Your task to perform on an android device: Open a new Chrome tab Image 0: 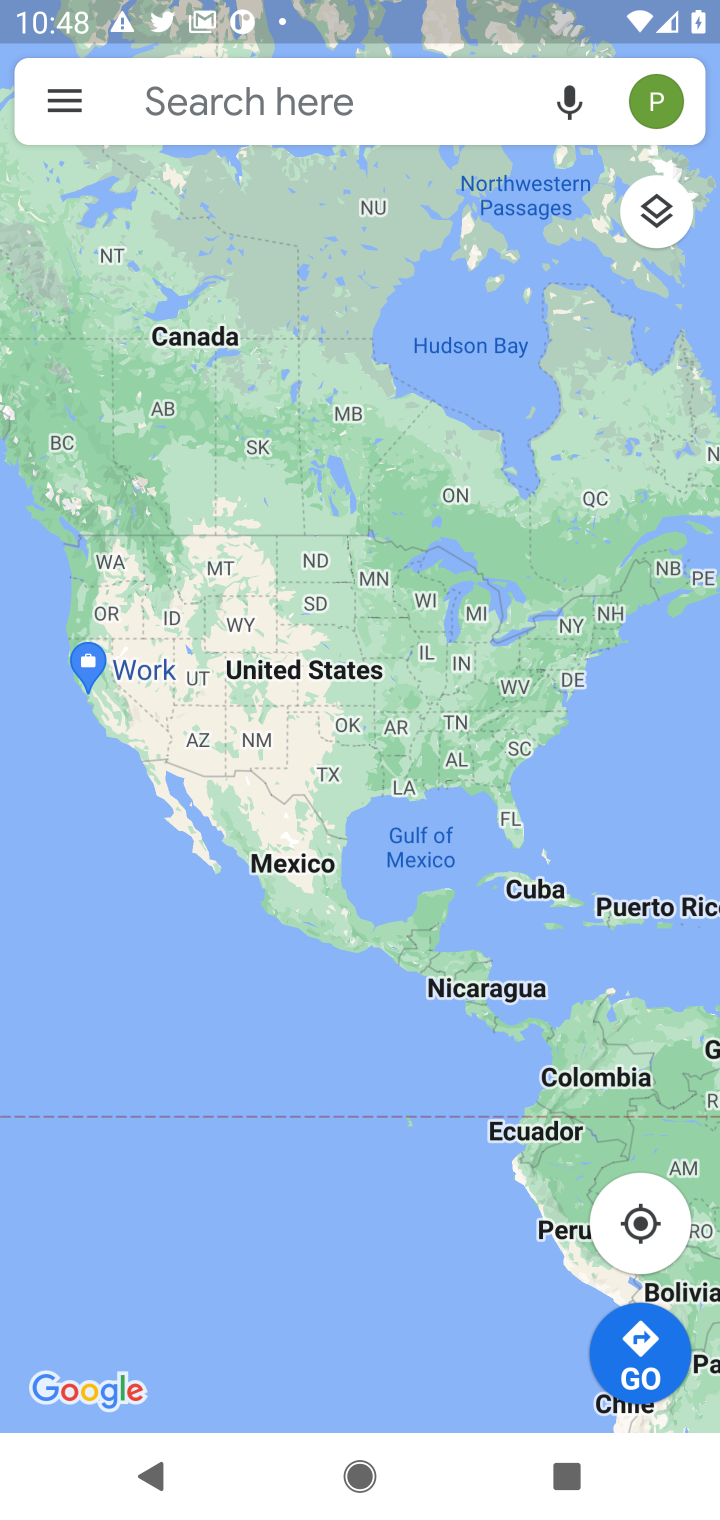
Step 0: press home button
Your task to perform on an android device: Open a new Chrome tab Image 1: 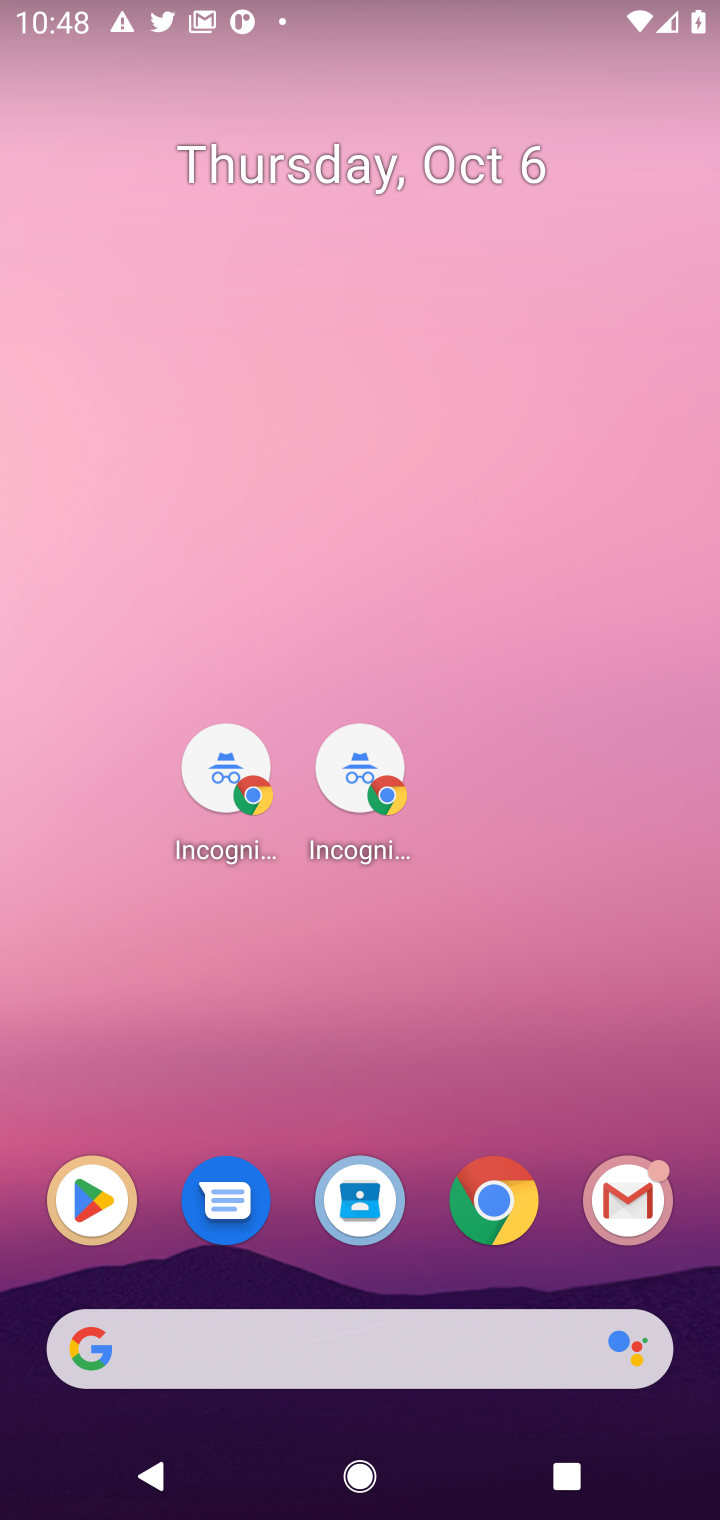
Step 1: press home button
Your task to perform on an android device: Open a new Chrome tab Image 2: 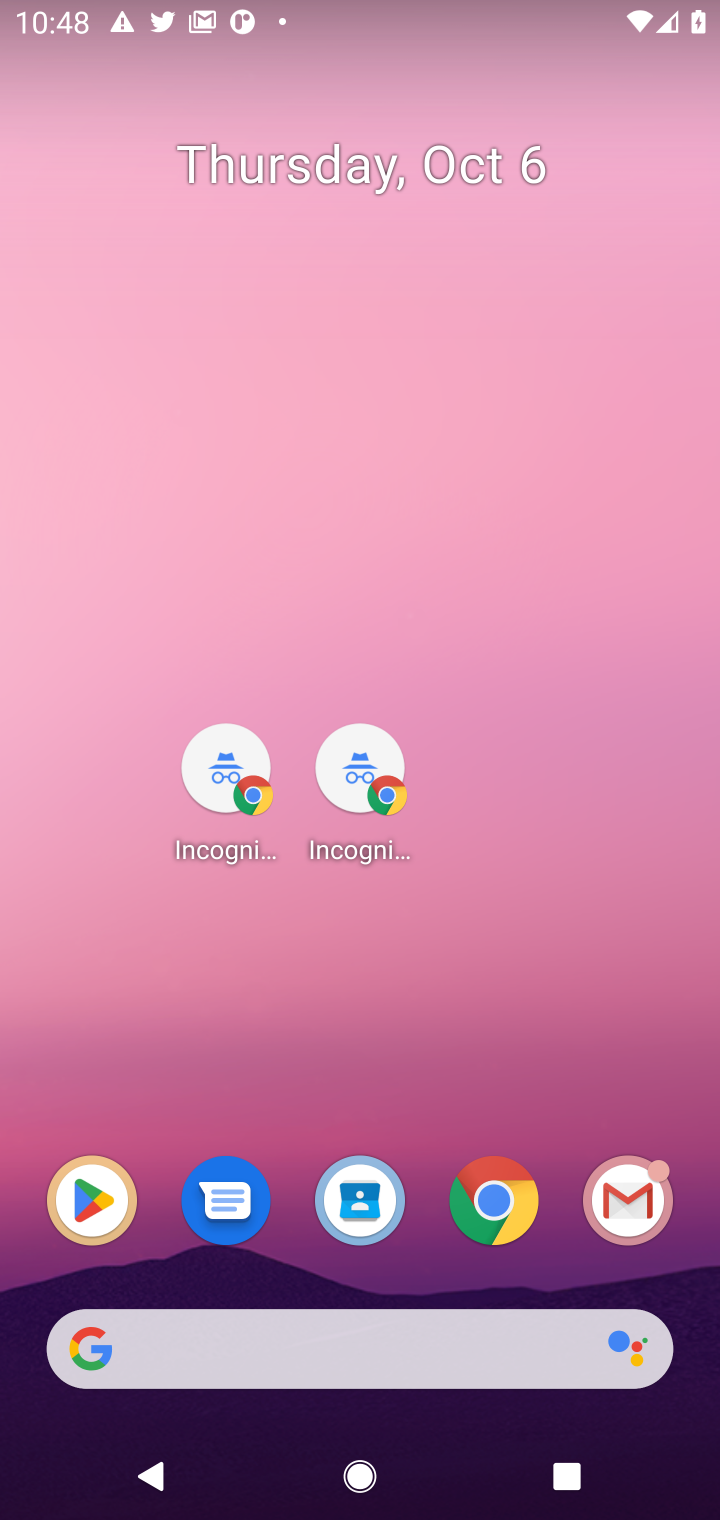
Step 2: press back button
Your task to perform on an android device: Open a new Chrome tab Image 3: 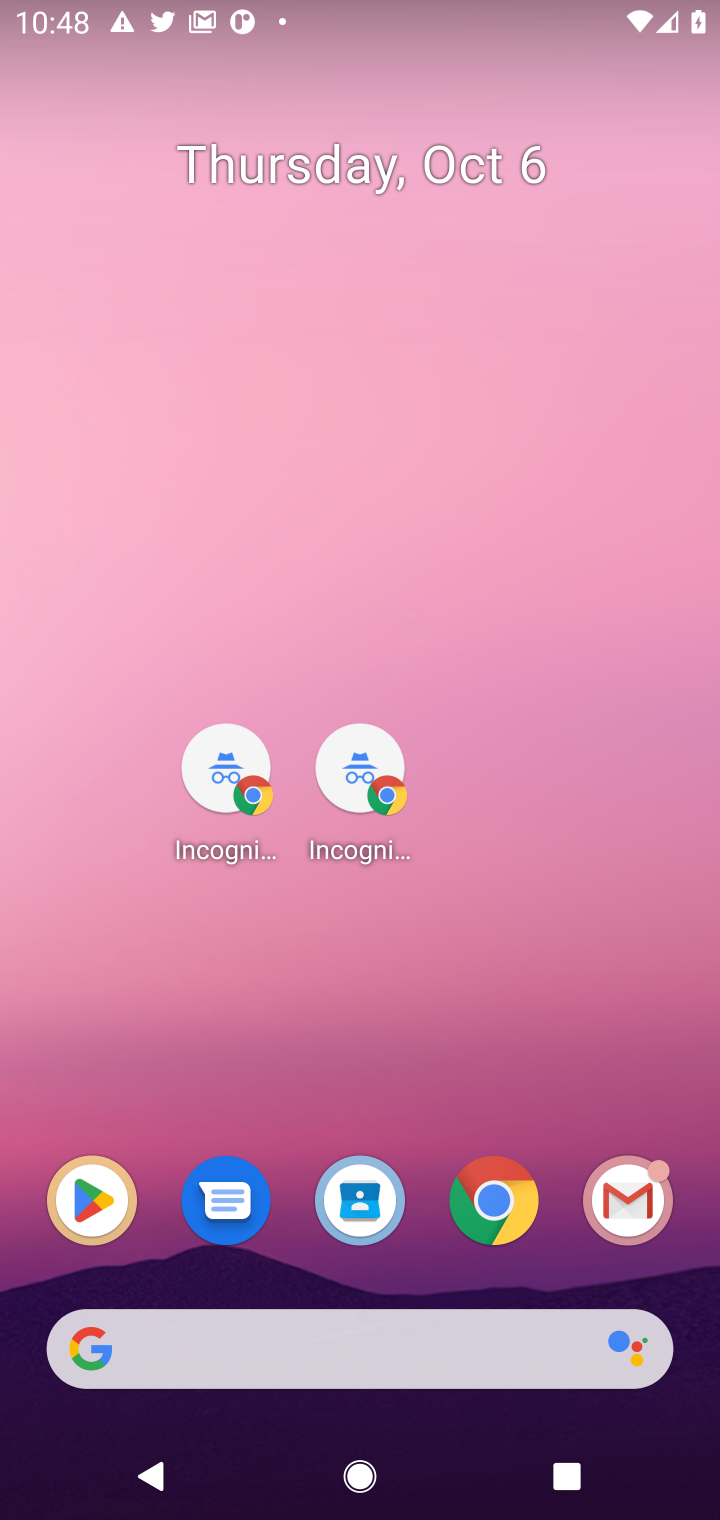
Step 3: press back button
Your task to perform on an android device: Open a new Chrome tab Image 4: 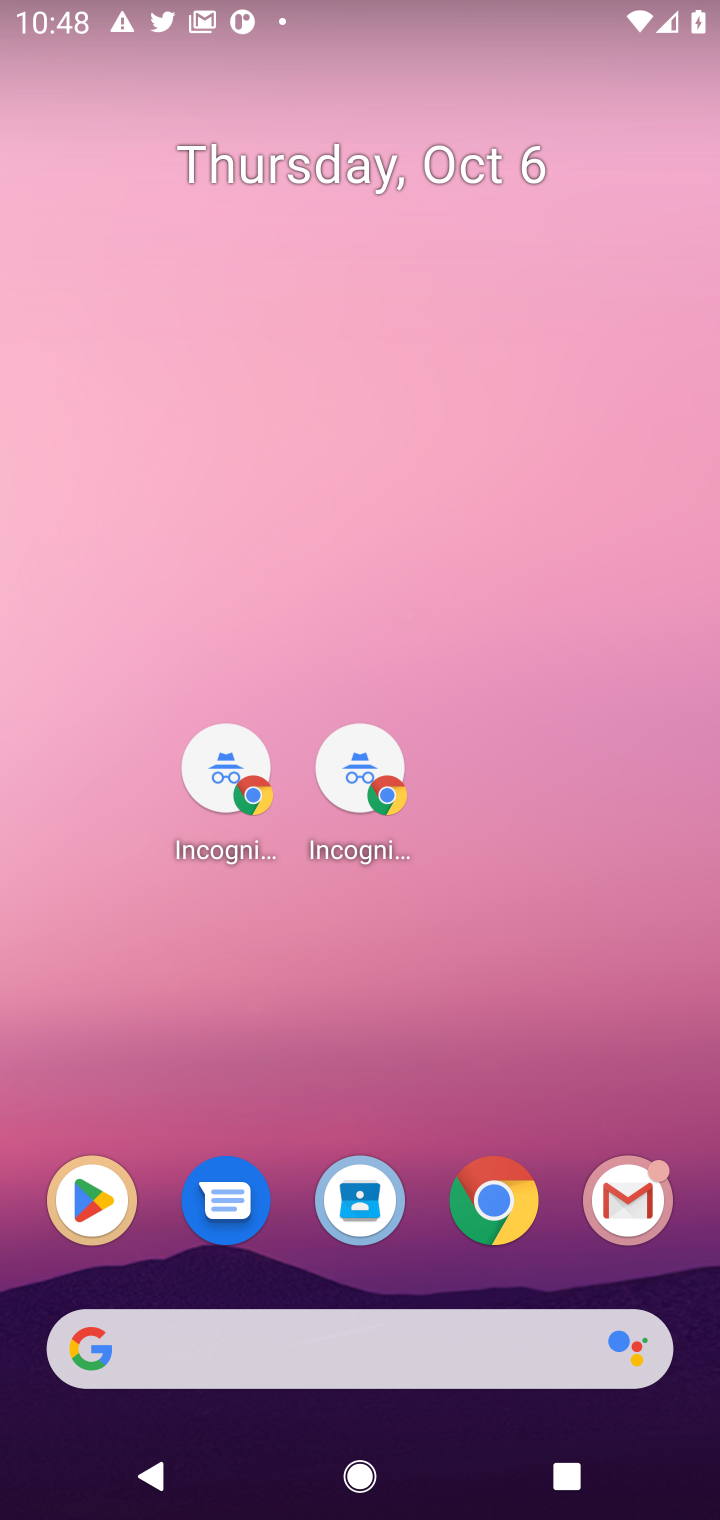
Step 4: click (526, 1189)
Your task to perform on an android device: Open a new Chrome tab Image 5: 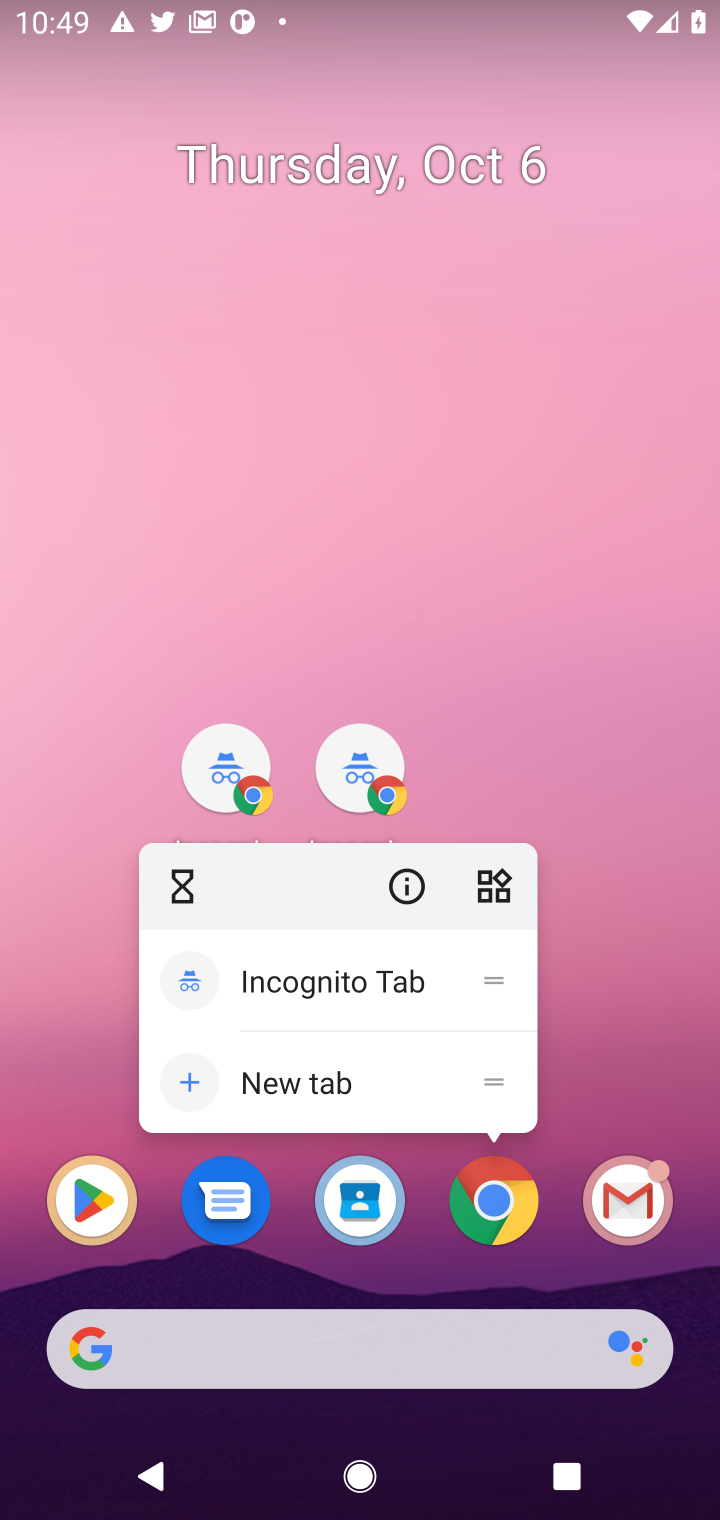
Step 5: click (530, 1171)
Your task to perform on an android device: Open a new Chrome tab Image 6: 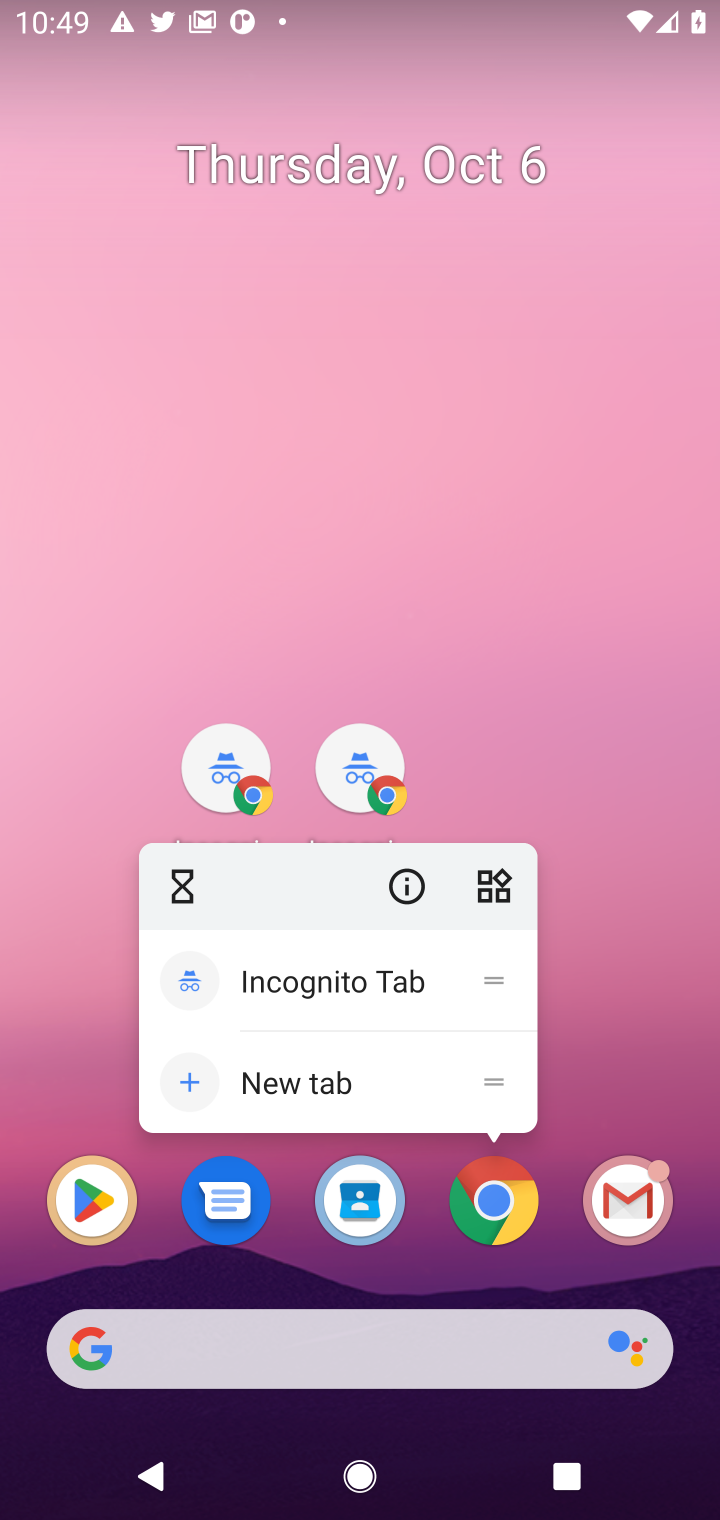
Step 6: click (271, 1079)
Your task to perform on an android device: Open a new Chrome tab Image 7: 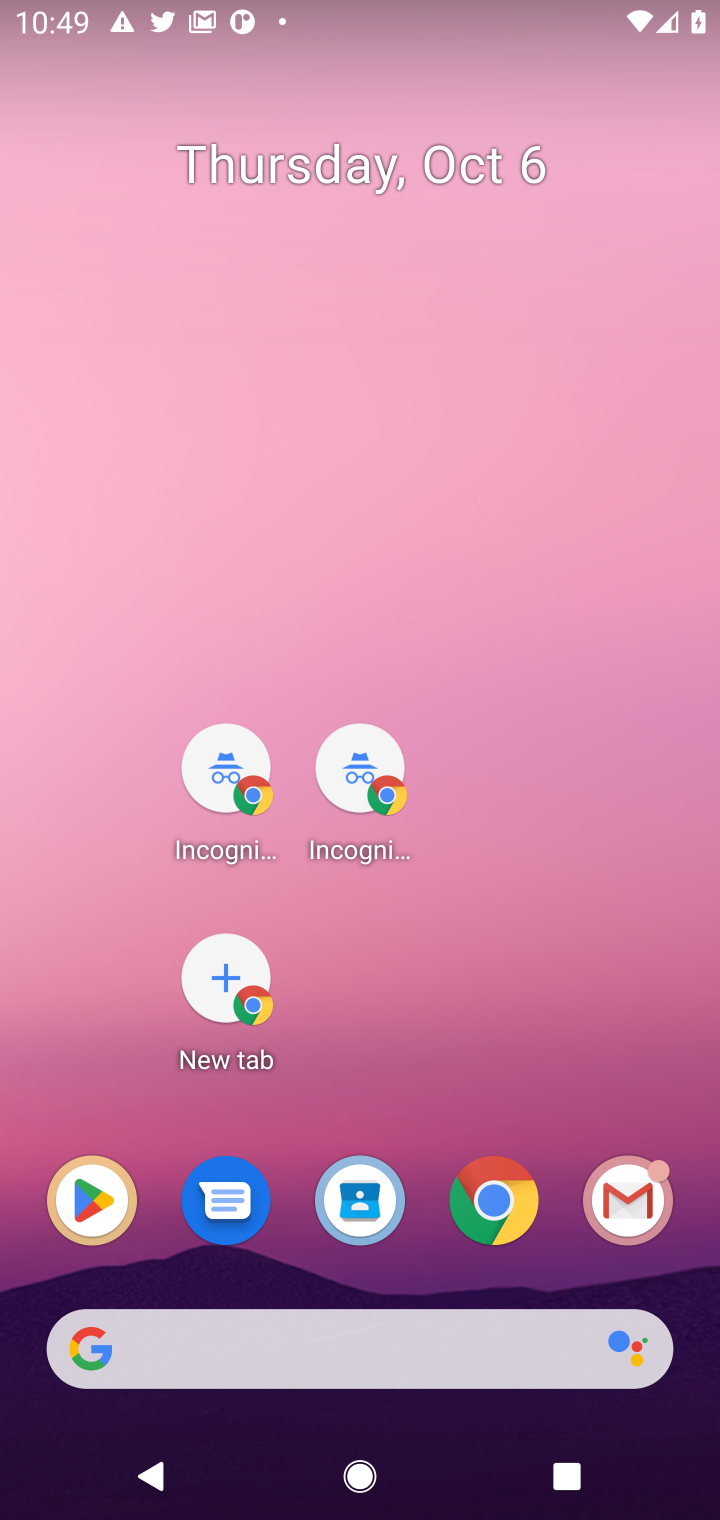
Step 7: click (229, 967)
Your task to perform on an android device: Open a new Chrome tab Image 8: 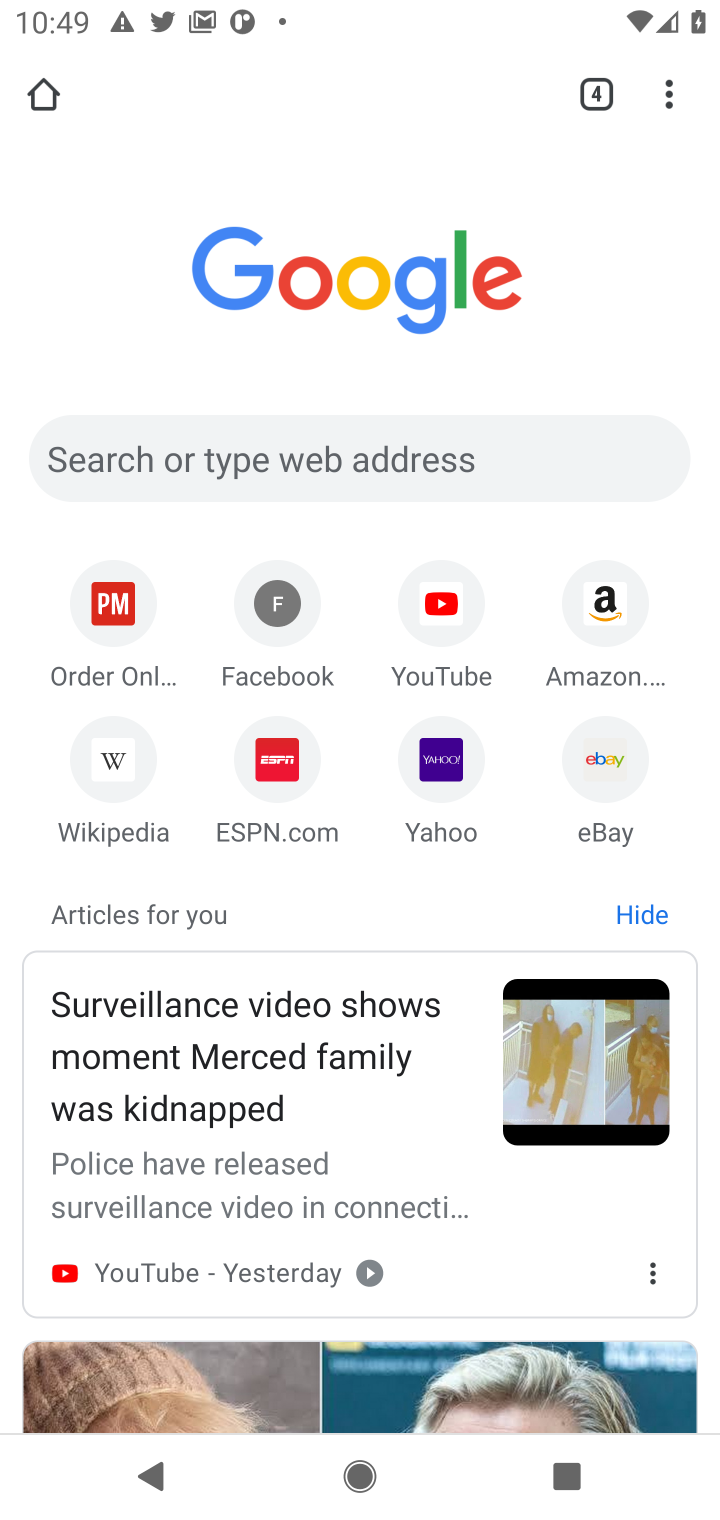
Step 8: click (665, 94)
Your task to perform on an android device: Open a new Chrome tab Image 9: 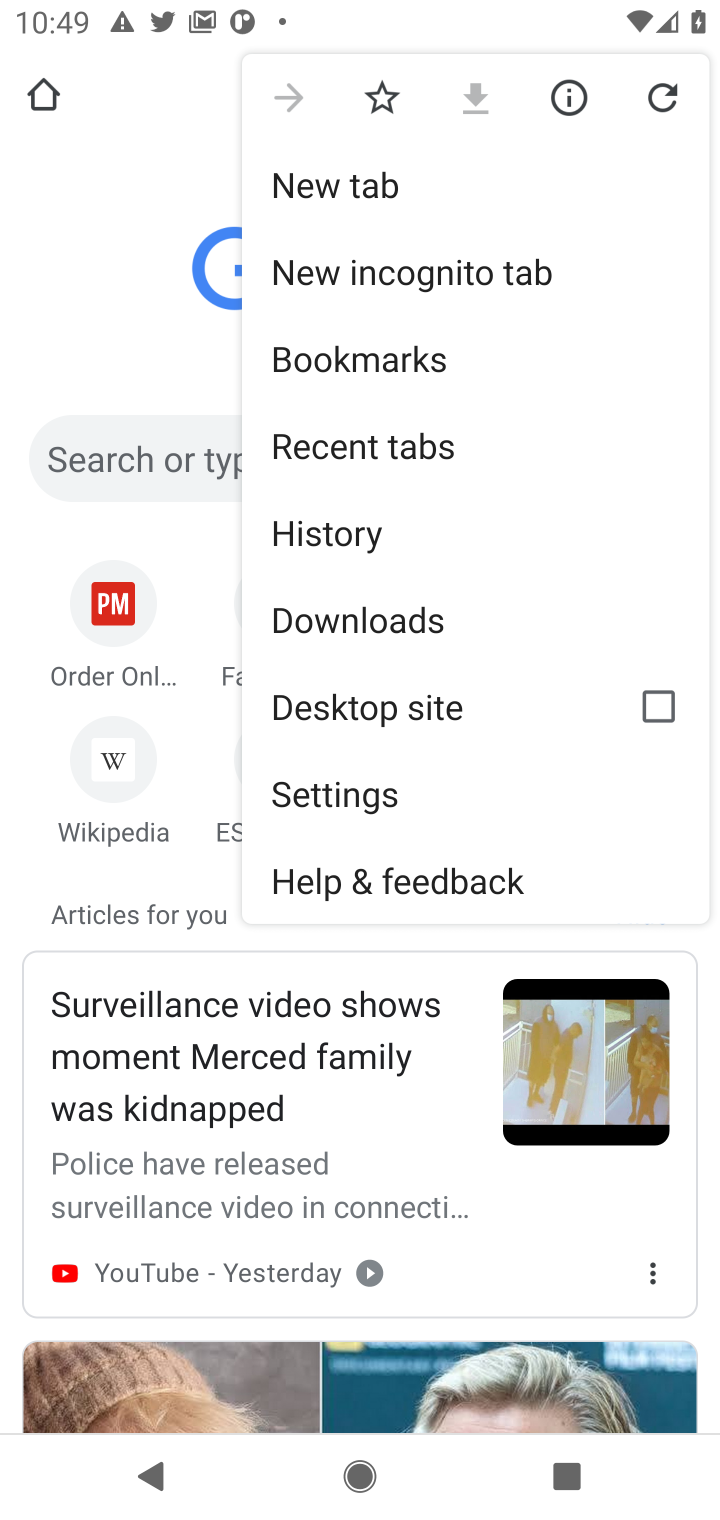
Step 9: click (347, 189)
Your task to perform on an android device: Open a new Chrome tab Image 10: 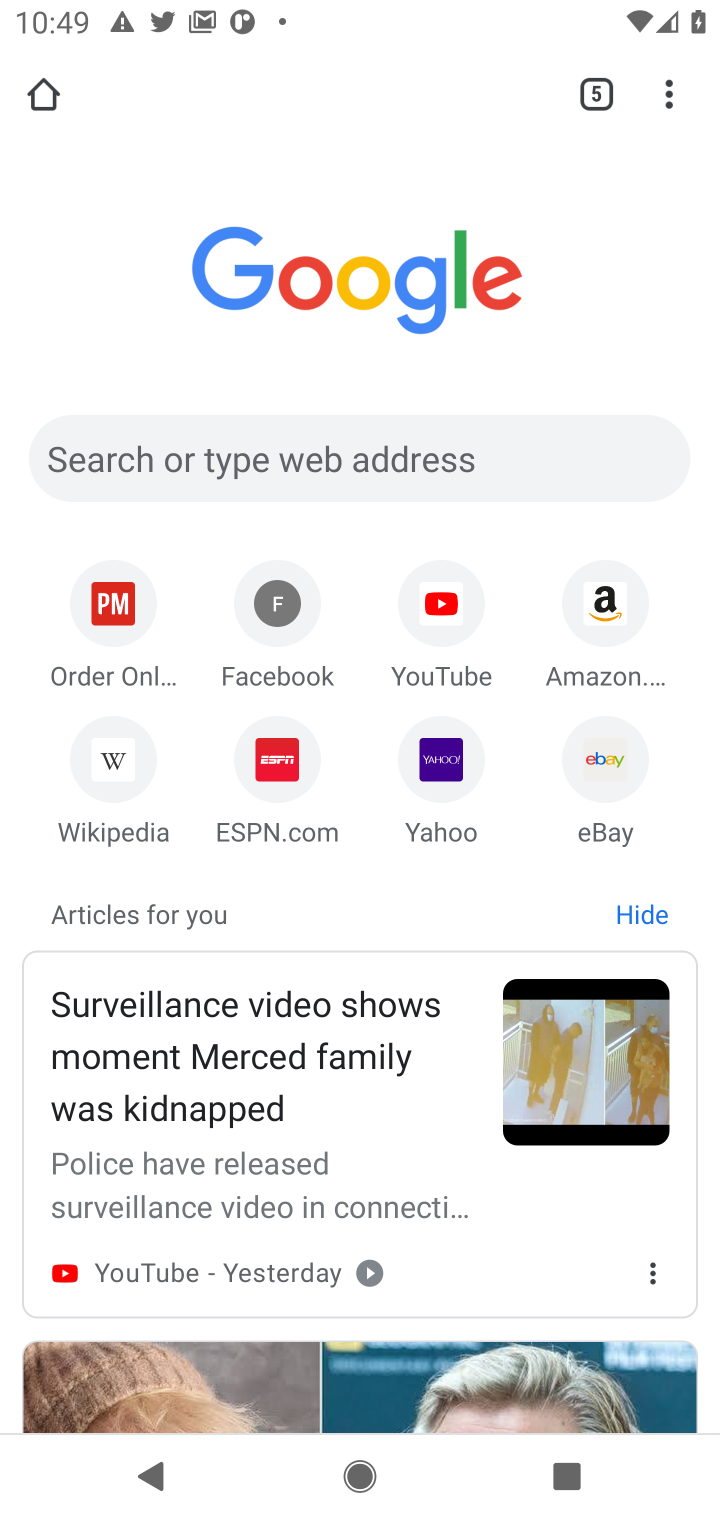
Step 10: task complete